Your task to perform on an android device: set default search engine in the chrome app Image 0: 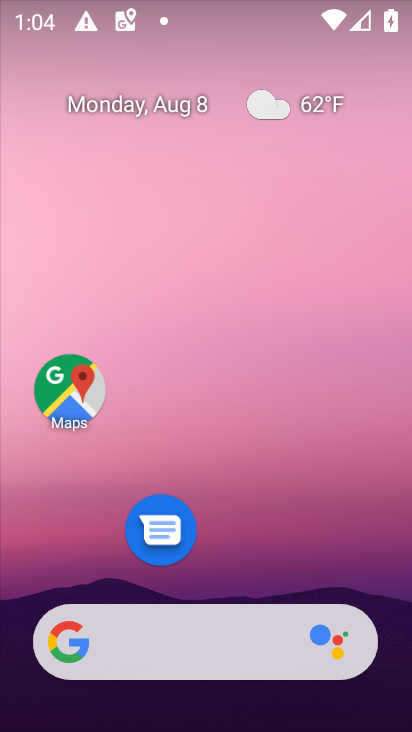
Step 0: drag from (242, 574) to (233, 92)
Your task to perform on an android device: set default search engine in the chrome app Image 1: 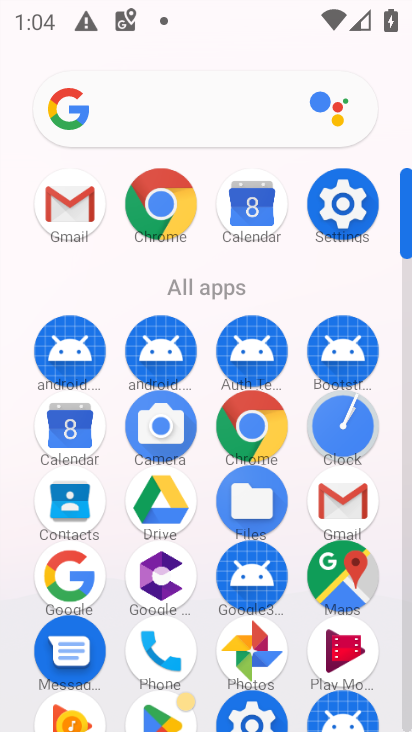
Step 1: click (165, 206)
Your task to perform on an android device: set default search engine in the chrome app Image 2: 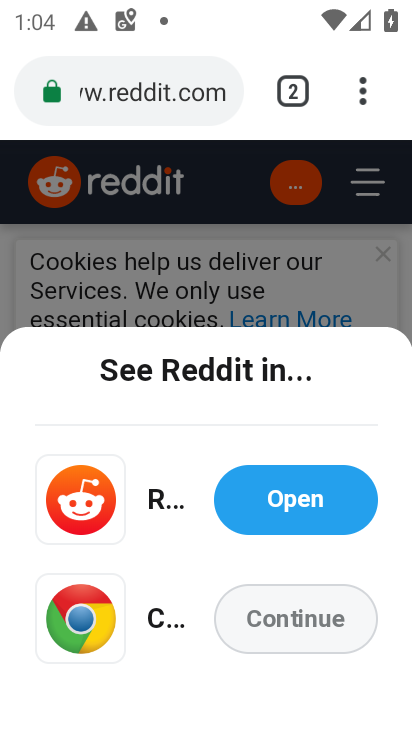
Step 2: drag from (361, 95) to (287, 560)
Your task to perform on an android device: set default search engine in the chrome app Image 3: 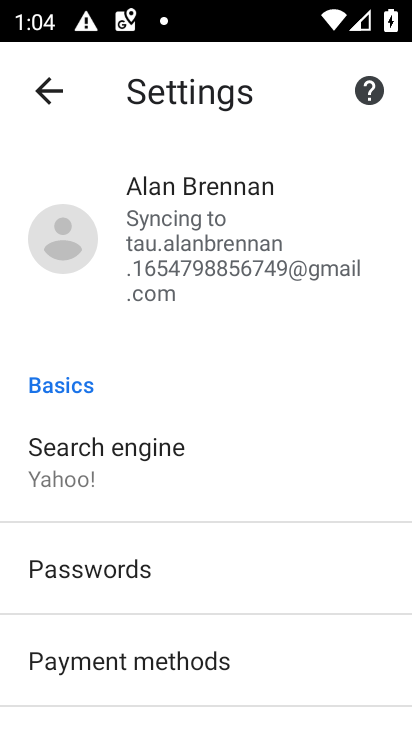
Step 3: click (57, 462)
Your task to perform on an android device: set default search engine in the chrome app Image 4: 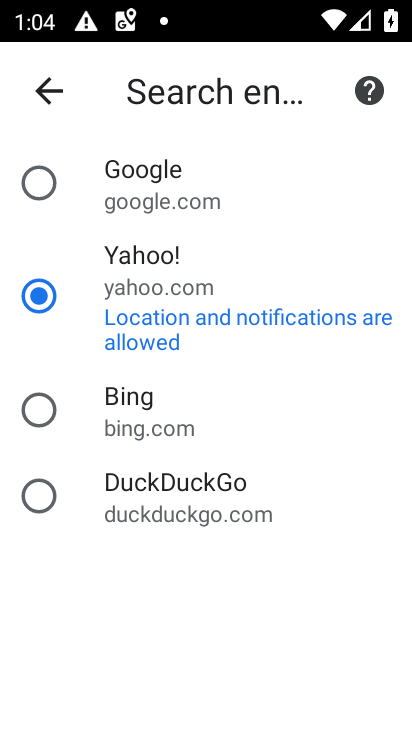
Step 4: click (48, 180)
Your task to perform on an android device: set default search engine in the chrome app Image 5: 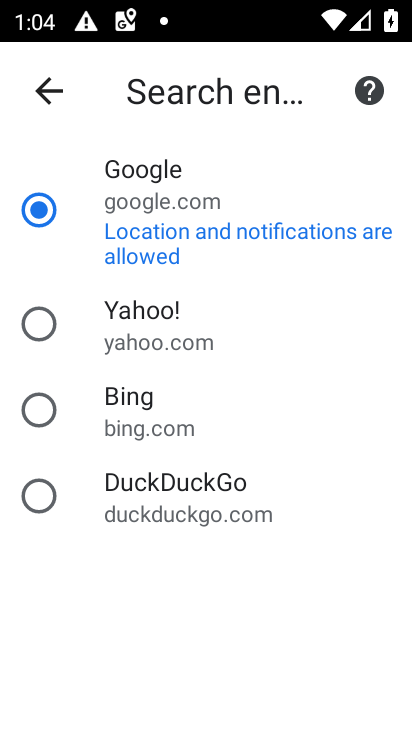
Step 5: task complete